Your task to perform on an android device: empty trash in the gmail app Image 0: 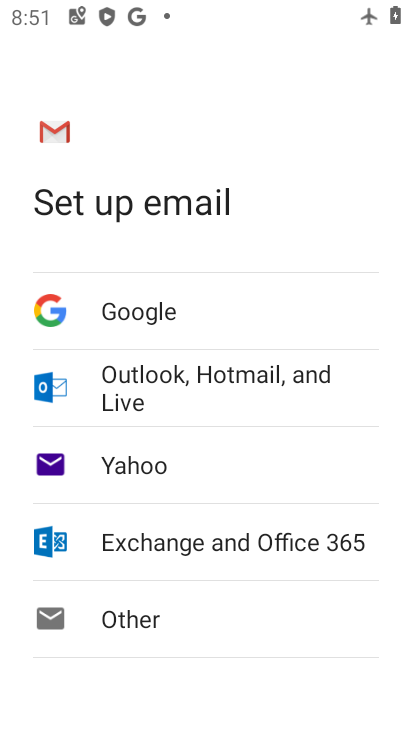
Step 0: press home button
Your task to perform on an android device: empty trash in the gmail app Image 1: 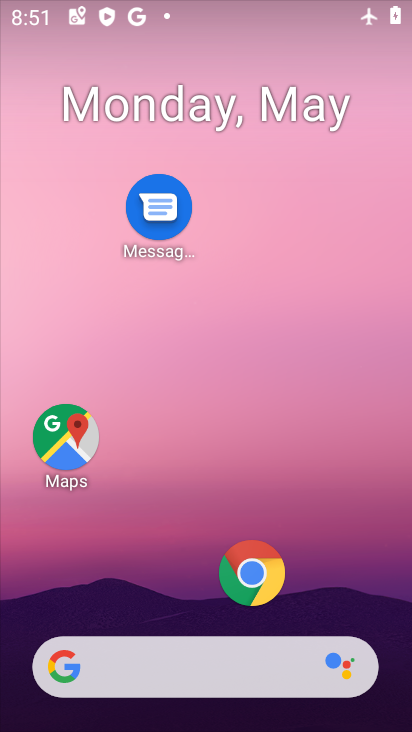
Step 1: drag from (220, 636) to (324, 134)
Your task to perform on an android device: empty trash in the gmail app Image 2: 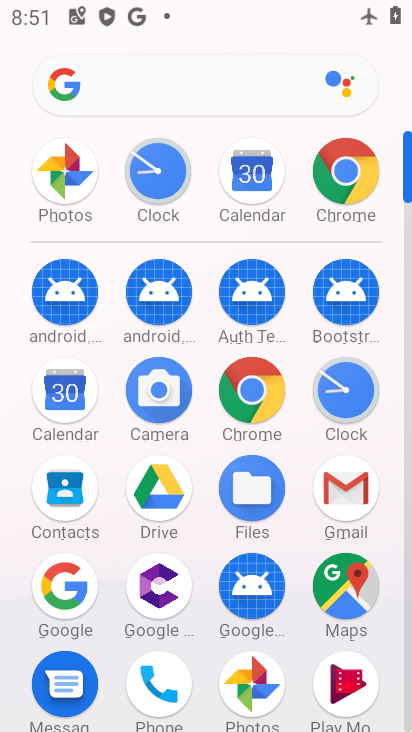
Step 2: click (361, 507)
Your task to perform on an android device: empty trash in the gmail app Image 3: 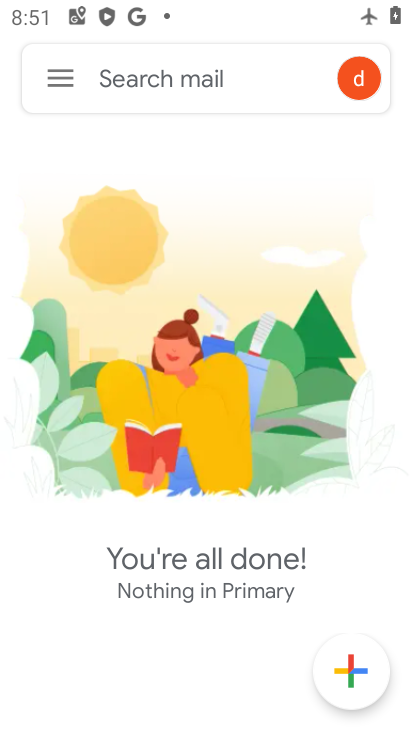
Step 3: click (64, 90)
Your task to perform on an android device: empty trash in the gmail app Image 4: 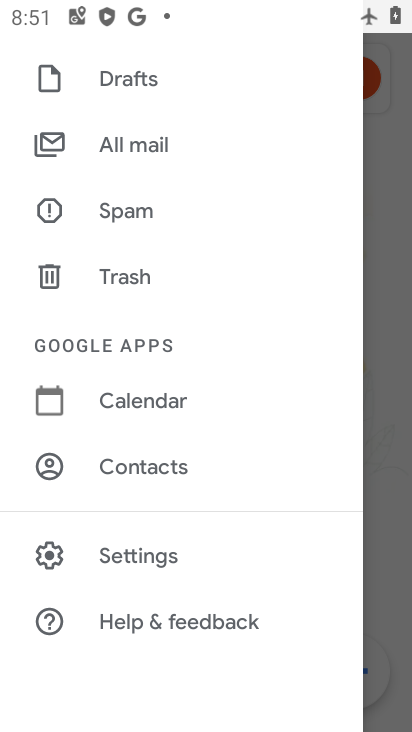
Step 4: click (116, 280)
Your task to perform on an android device: empty trash in the gmail app Image 5: 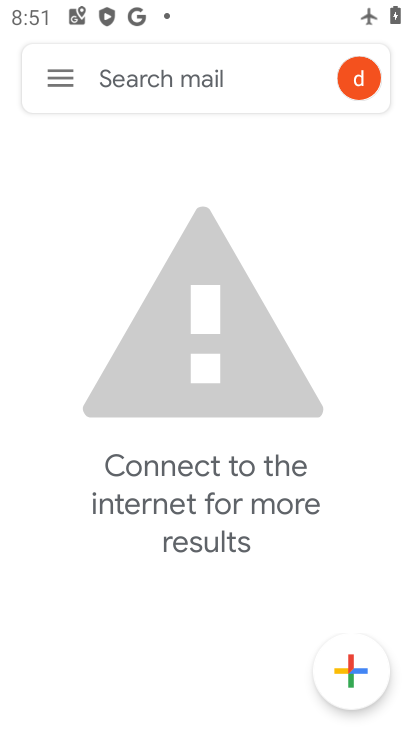
Step 5: task complete